Your task to perform on an android device: Search for Italian restaurants on Maps Image 0: 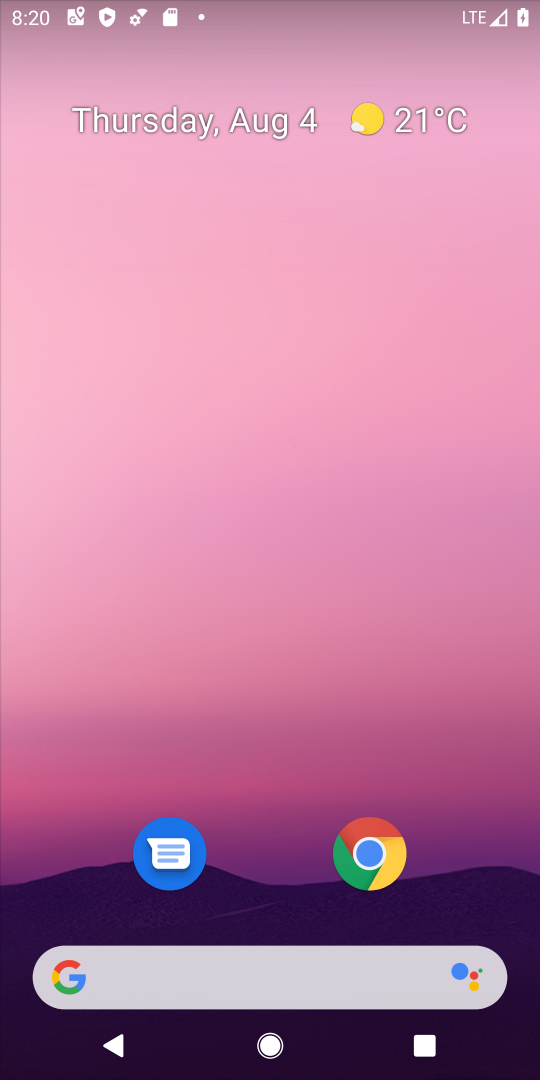
Step 0: drag from (314, 952) to (148, 192)
Your task to perform on an android device: Search for Italian restaurants on Maps Image 1: 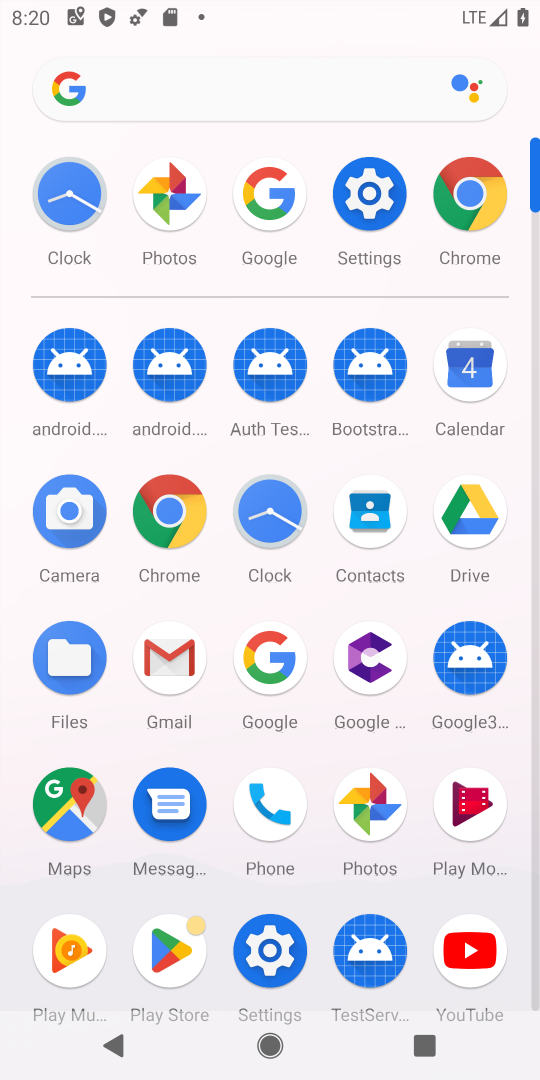
Step 1: click (55, 810)
Your task to perform on an android device: Search for Italian restaurants on Maps Image 2: 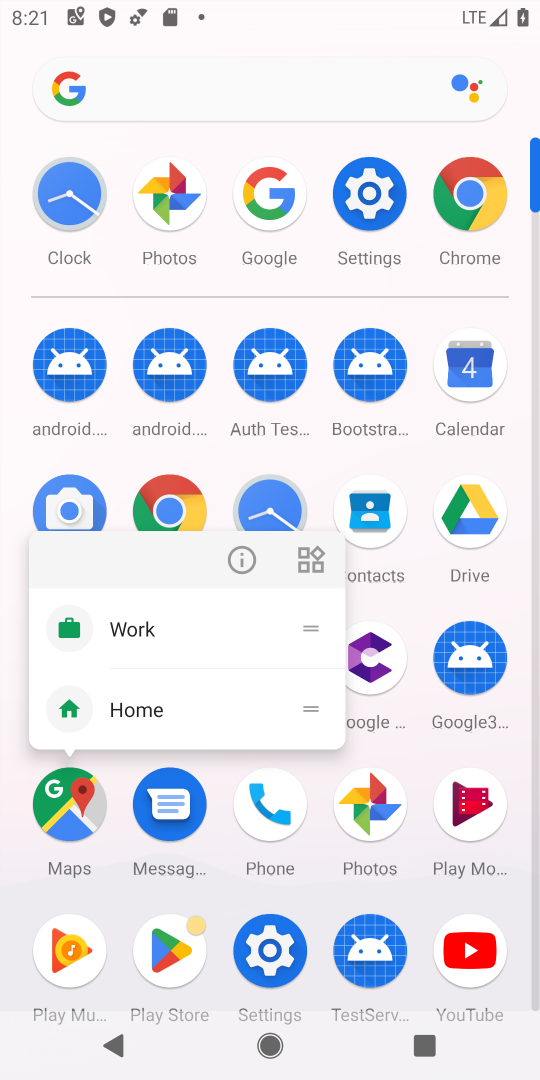
Step 2: click (55, 810)
Your task to perform on an android device: Search for Italian restaurants on Maps Image 3: 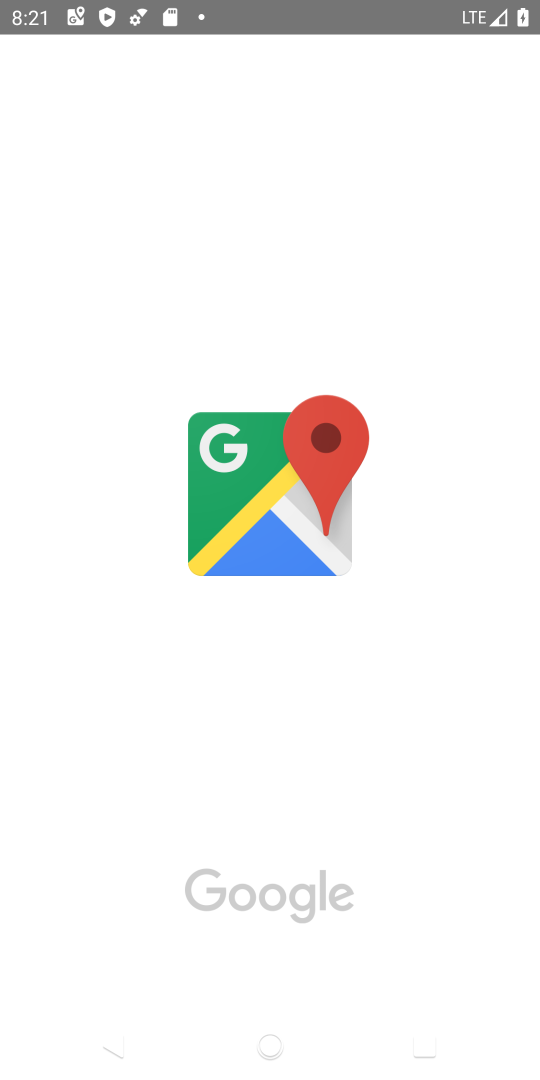
Step 3: click (55, 810)
Your task to perform on an android device: Search for Italian restaurants on Maps Image 4: 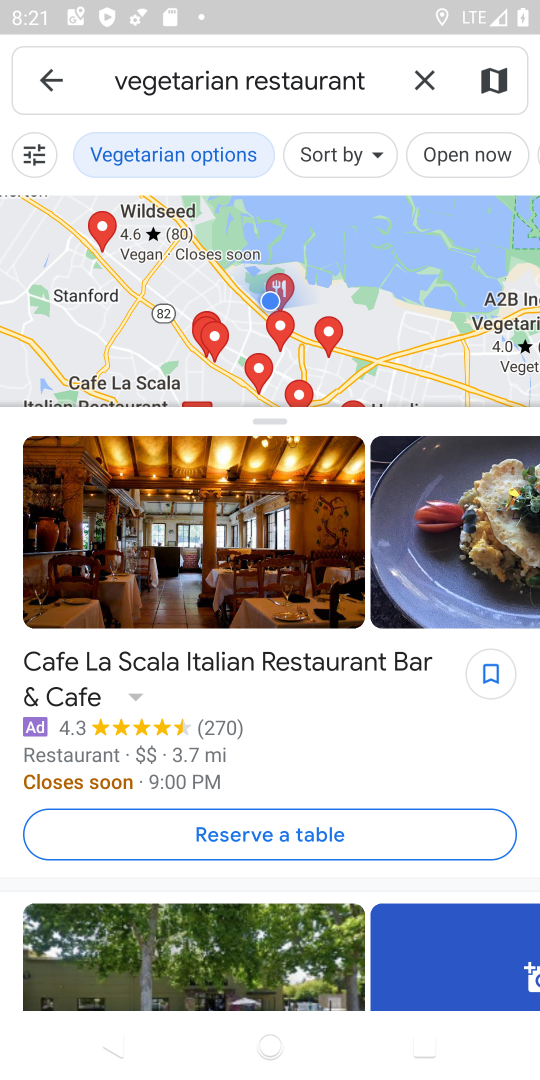
Step 4: click (422, 83)
Your task to perform on an android device: Search for Italian restaurants on Maps Image 5: 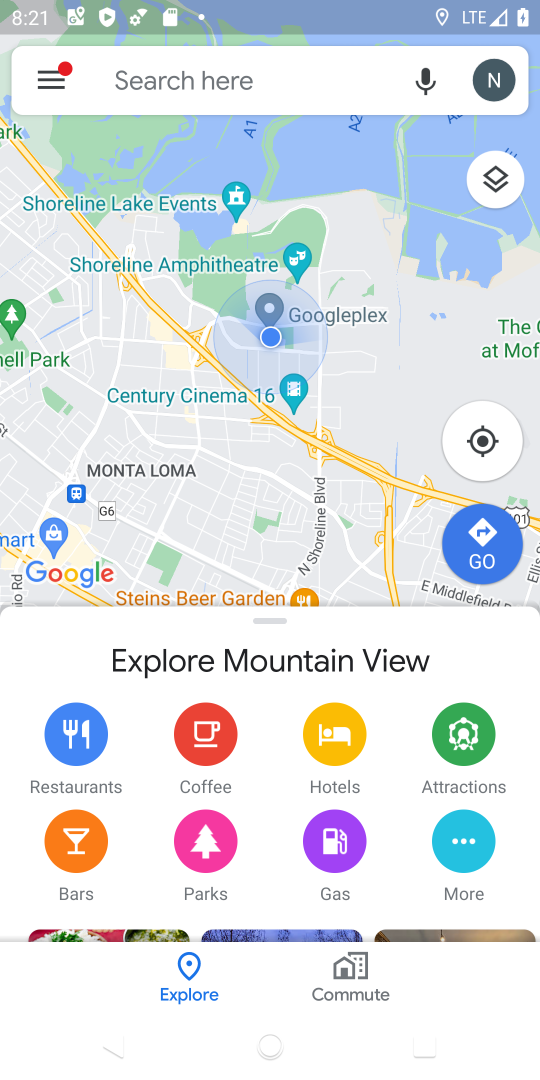
Step 5: click (144, 77)
Your task to perform on an android device: Search for Italian restaurants on Maps Image 6: 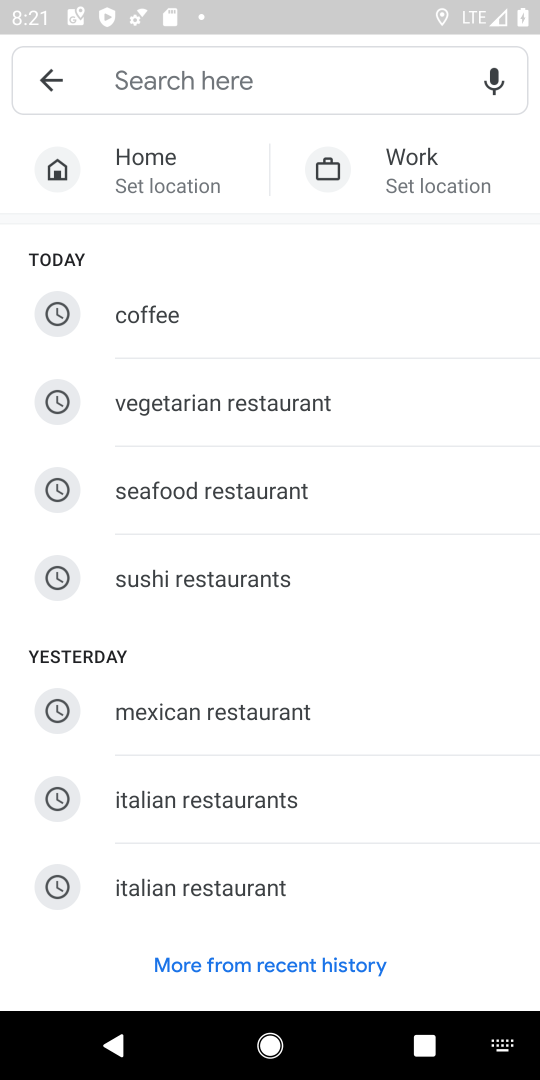
Step 6: click (142, 809)
Your task to perform on an android device: Search for Italian restaurants on Maps Image 7: 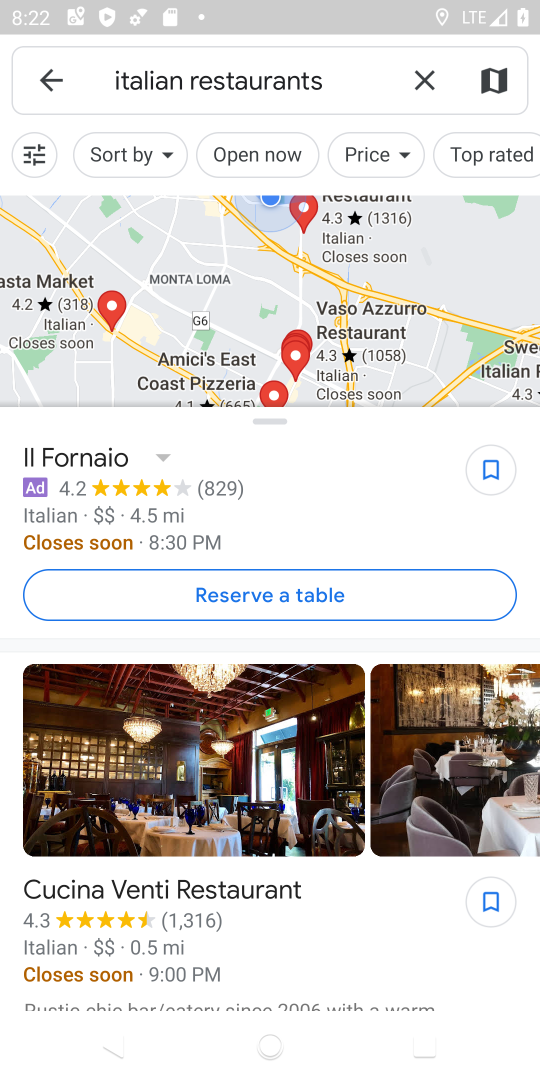
Step 7: task complete